Your task to perform on an android device: turn off wifi Image 0: 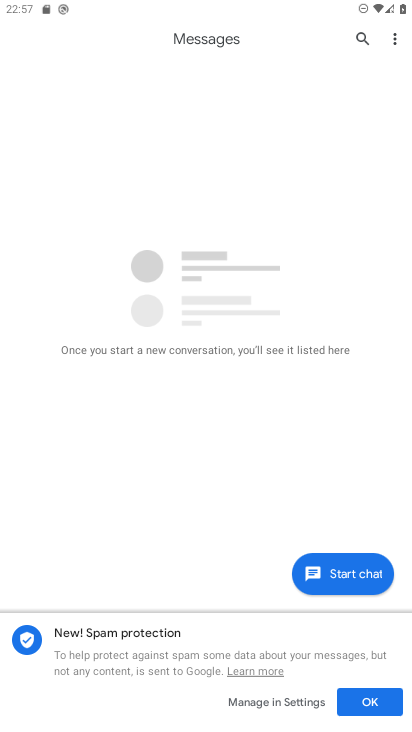
Step 0: press home button
Your task to perform on an android device: turn off wifi Image 1: 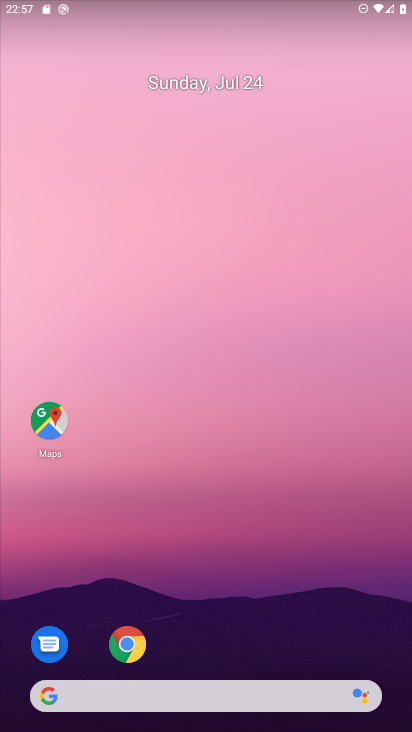
Step 1: drag from (298, 627) to (276, 186)
Your task to perform on an android device: turn off wifi Image 2: 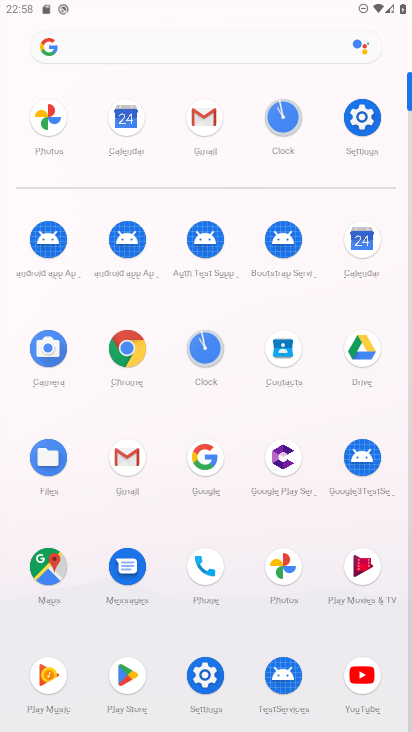
Step 2: click (204, 676)
Your task to perform on an android device: turn off wifi Image 3: 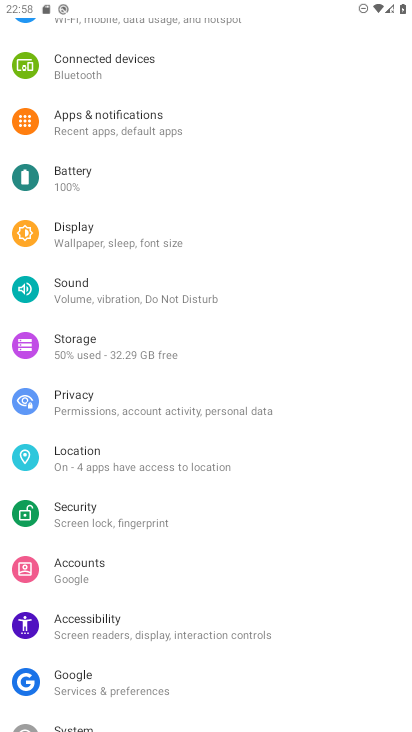
Step 3: drag from (309, 164) to (290, 488)
Your task to perform on an android device: turn off wifi Image 4: 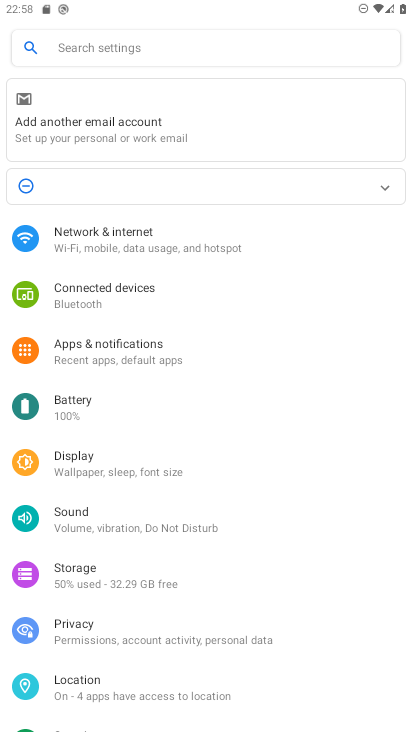
Step 4: click (105, 225)
Your task to perform on an android device: turn off wifi Image 5: 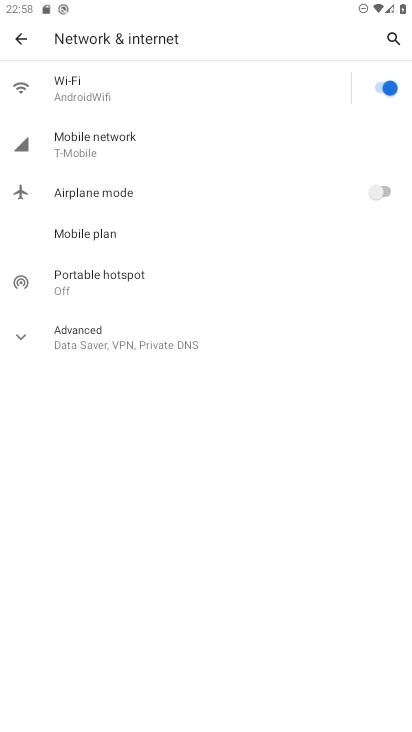
Step 5: click (370, 82)
Your task to perform on an android device: turn off wifi Image 6: 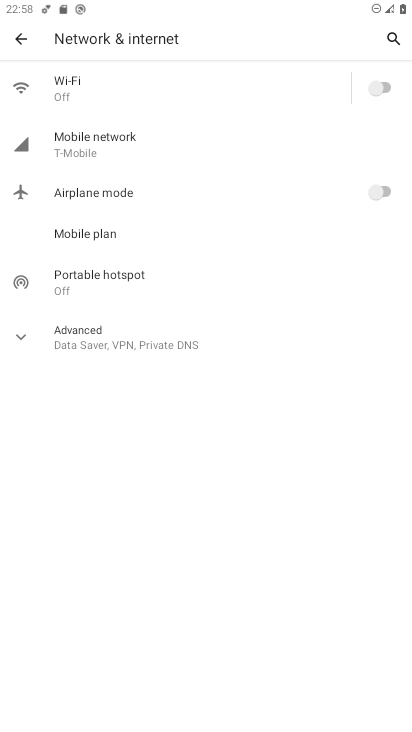
Step 6: task complete